Your task to perform on an android device: Go to eBay Image 0: 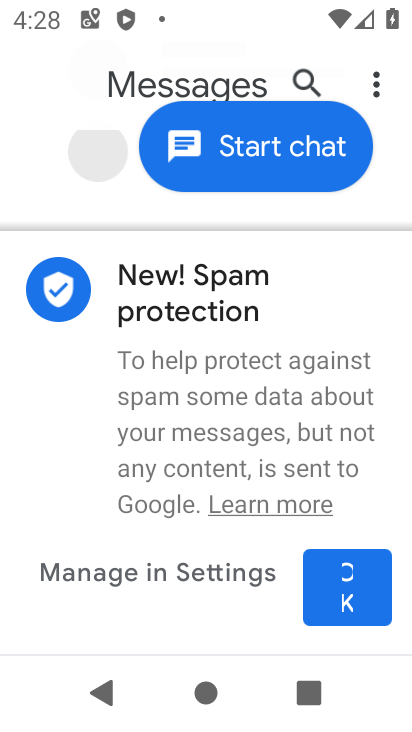
Step 0: press home button
Your task to perform on an android device: Go to eBay Image 1: 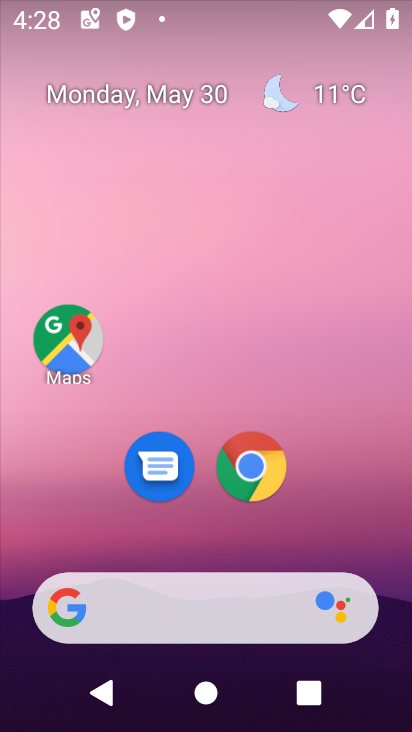
Step 1: click (256, 463)
Your task to perform on an android device: Go to eBay Image 2: 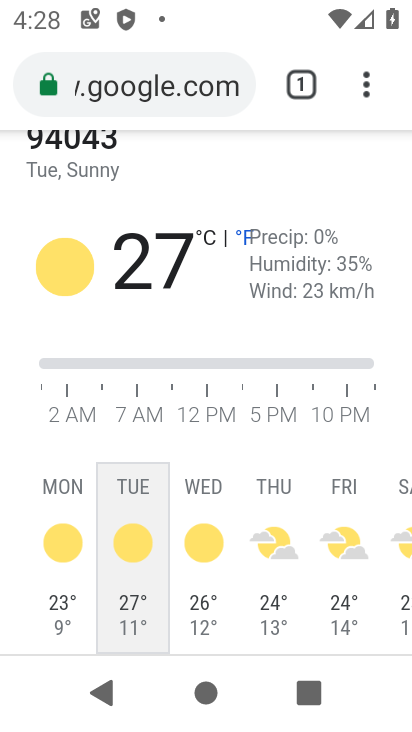
Step 2: click (172, 86)
Your task to perform on an android device: Go to eBay Image 3: 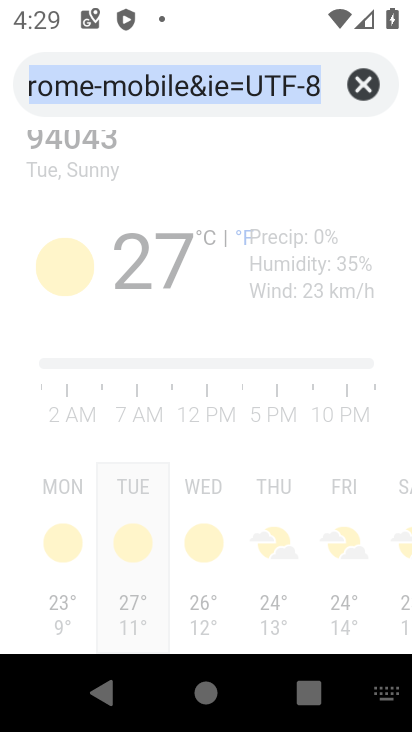
Step 3: type "ebay"
Your task to perform on an android device: Go to eBay Image 4: 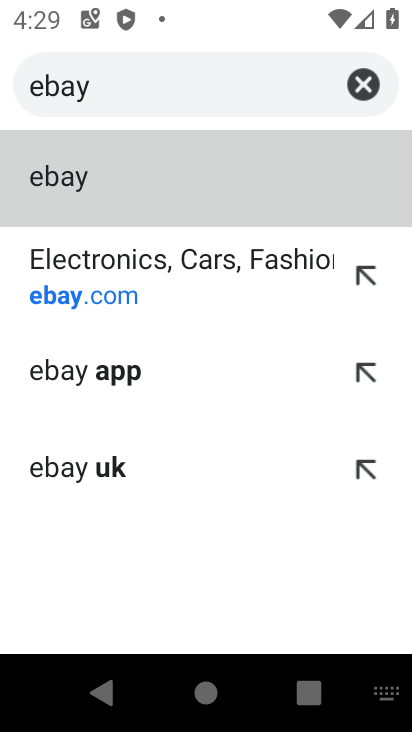
Step 4: click (87, 300)
Your task to perform on an android device: Go to eBay Image 5: 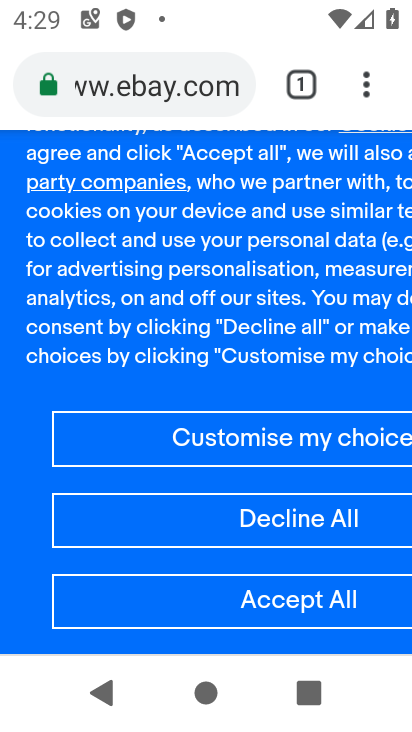
Step 5: task complete